Your task to perform on an android device: Go to ESPN.com Image 0: 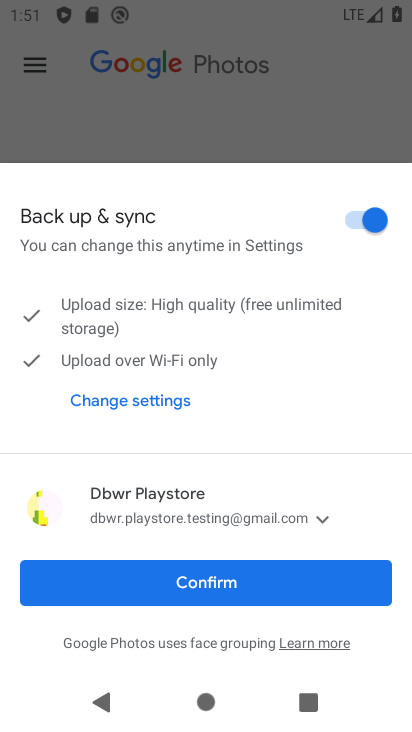
Step 0: press home button
Your task to perform on an android device: Go to ESPN.com Image 1: 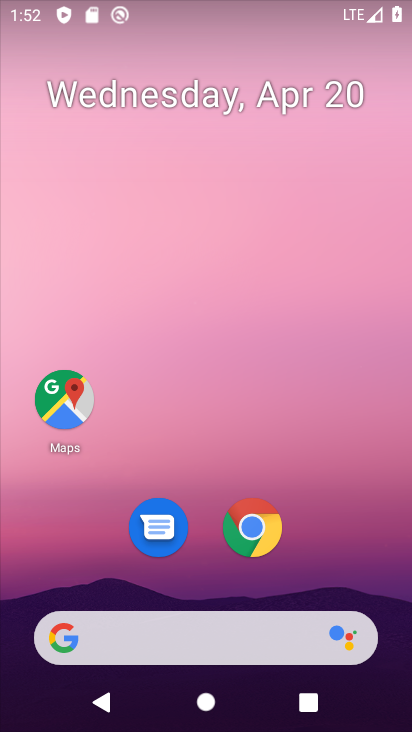
Step 1: click (256, 524)
Your task to perform on an android device: Go to ESPN.com Image 2: 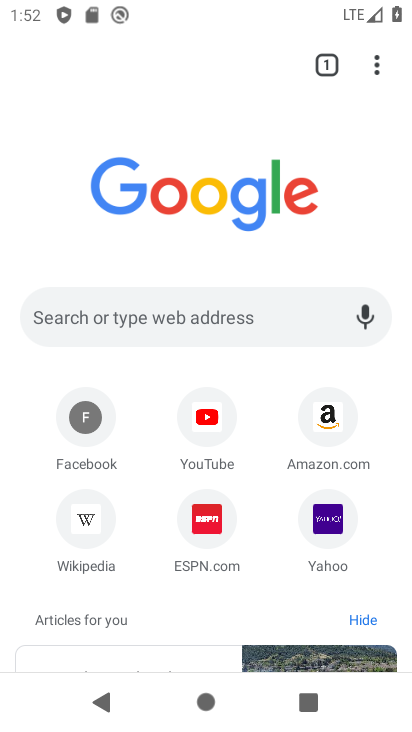
Step 2: click (205, 529)
Your task to perform on an android device: Go to ESPN.com Image 3: 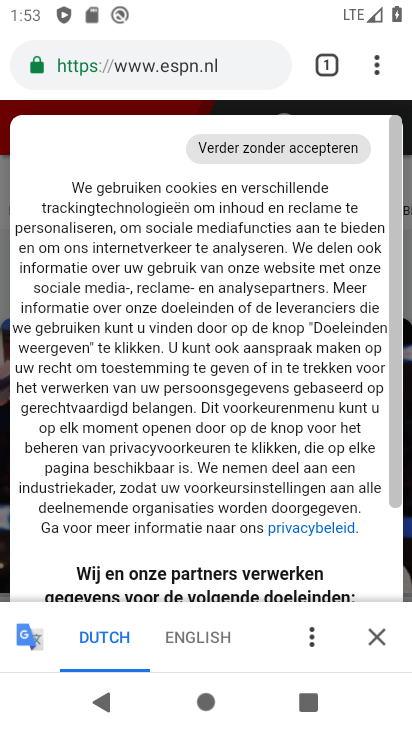
Step 3: task complete